Your task to perform on an android device: Open Android settings Image 0: 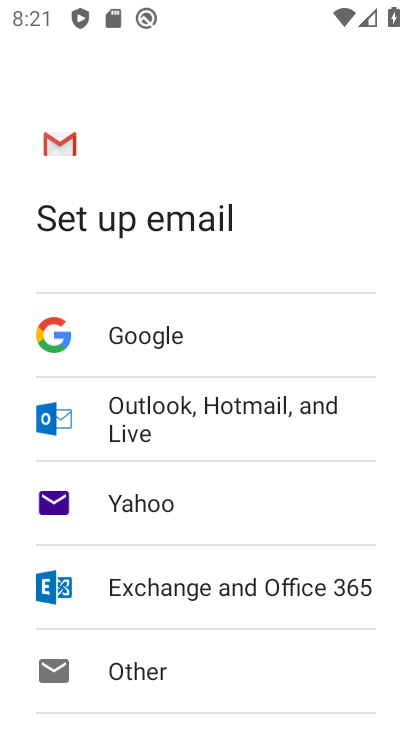
Step 0: press home button
Your task to perform on an android device: Open Android settings Image 1: 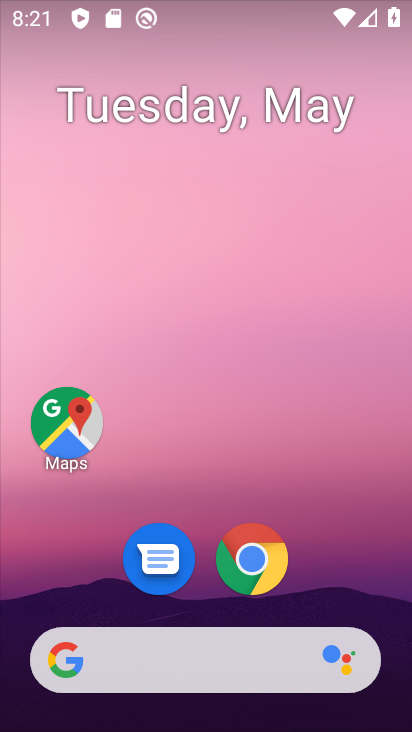
Step 1: drag from (234, 646) to (207, 125)
Your task to perform on an android device: Open Android settings Image 2: 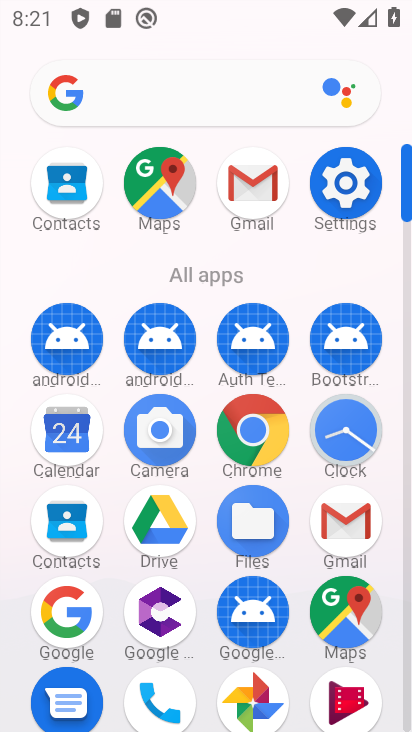
Step 2: click (345, 189)
Your task to perform on an android device: Open Android settings Image 3: 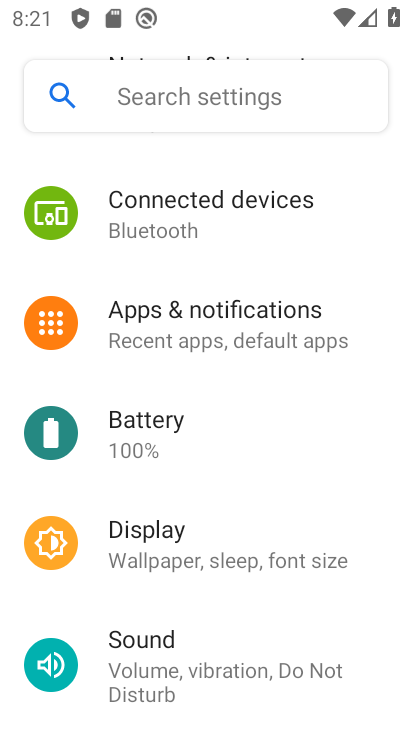
Step 3: task complete